Your task to perform on an android device: Go to display settings Image 0: 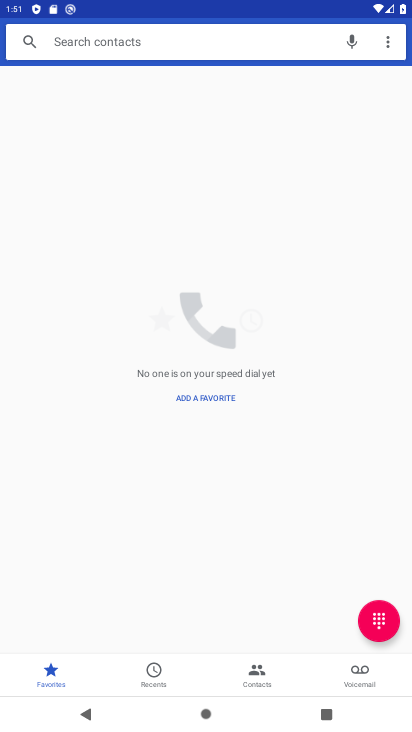
Step 0: press home button
Your task to perform on an android device: Go to display settings Image 1: 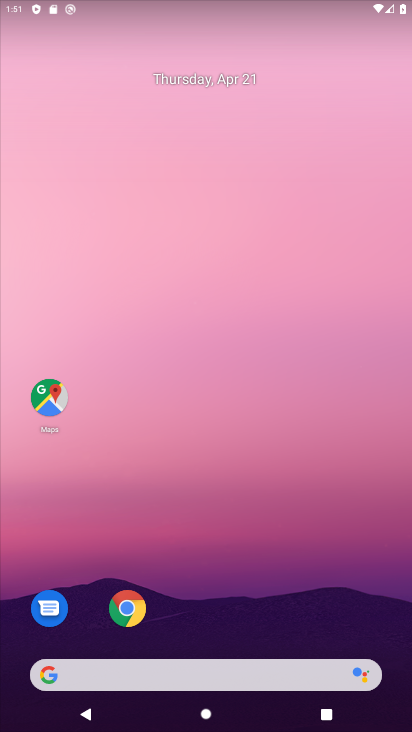
Step 1: drag from (222, 630) to (218, 207)
Your task to perform on an android device: Go to display settings Image 2: 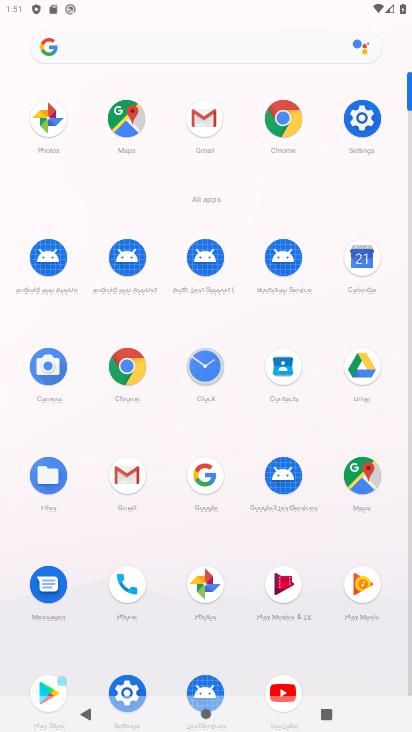
Step 2: click (381, 119)
Your task to perform on an android device: Go to display settings Image 3: 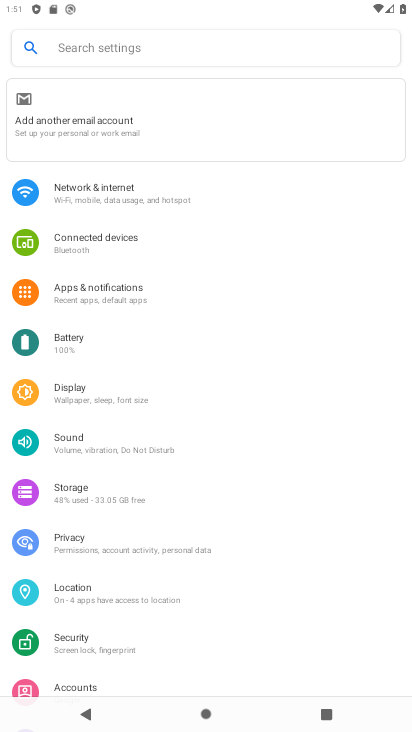
Step 3: click (97, 396)
Your task to perform on an android device: Go to display settings Image 4: 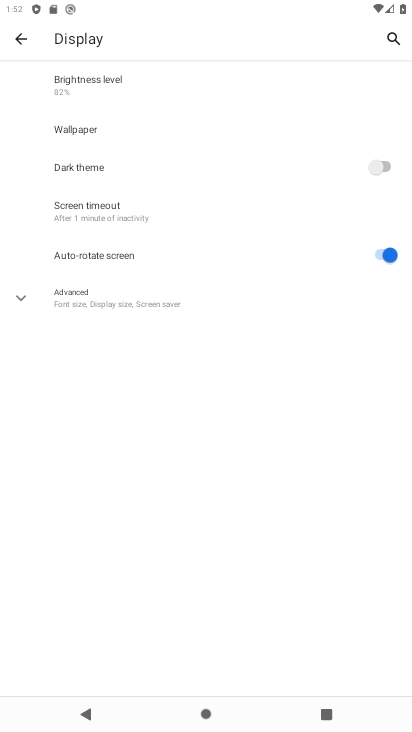
Step 4: task complete